Your task to perform on an android device: Toggle the flashlight Image 0: 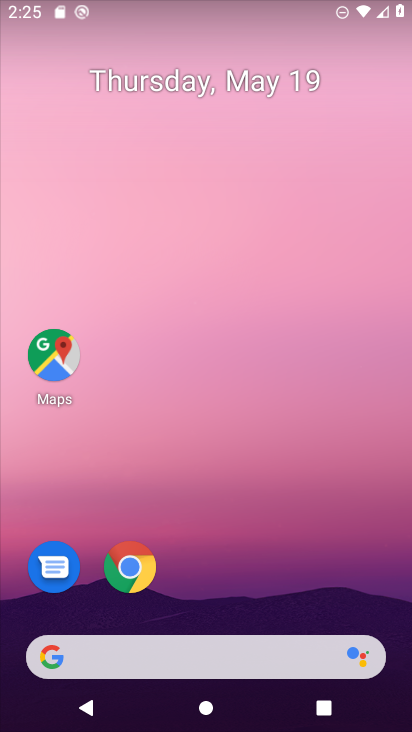
Step 0: drag from (262, 579) to (223, 84)
Your task to perform on an android device: Toggle the flashlight Image 1: 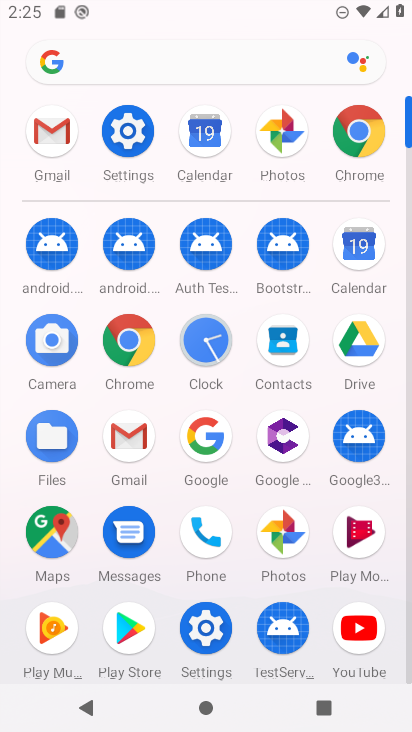
Step 1: click (132, 133)
Your task to perform on an android device: Toggle the flashlight Image 2: 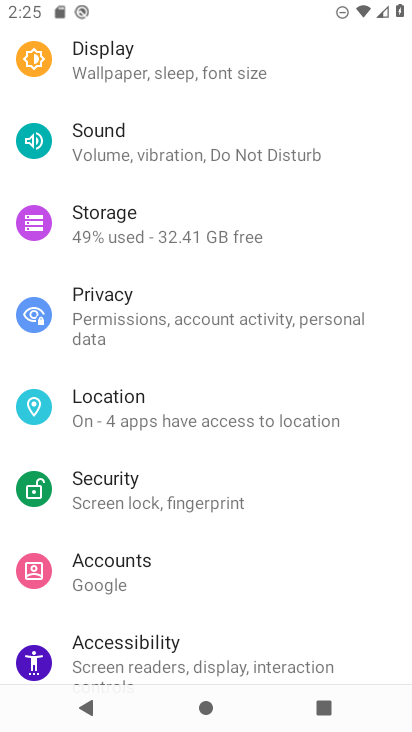
Step 2: drag from (208, 193) to (265, 634)
Your task to perform on an android device: Toggle the flashlight Image 3: 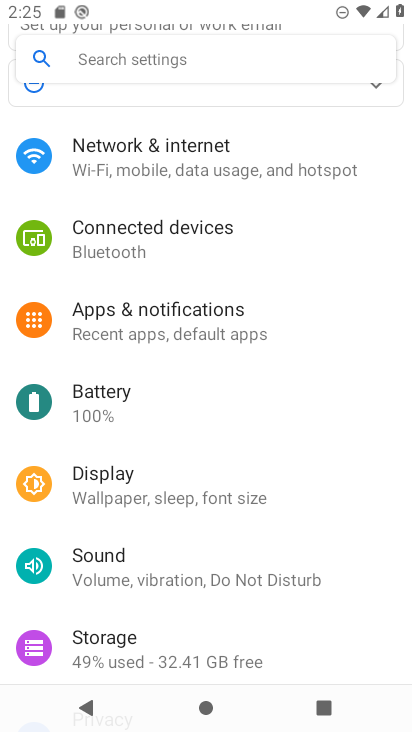
Step 3: drag from (254, 177) to (300, 587)
Your task to perform on an android device: Toggle the flashlight Image 4: 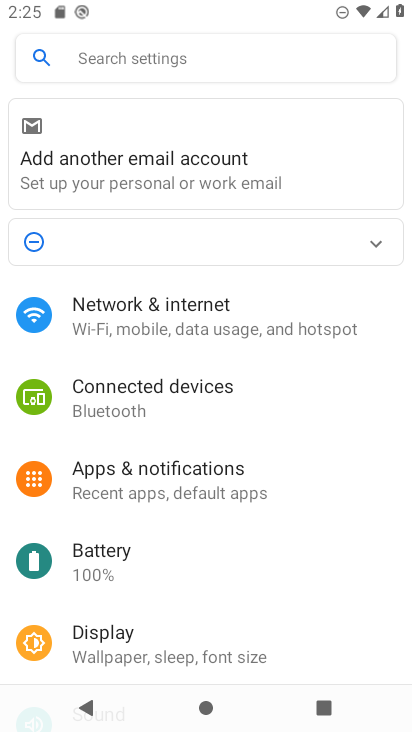
Step 4: click (280, 52)
Your task to perform on an android device: Toggle the flashlight Image 5: 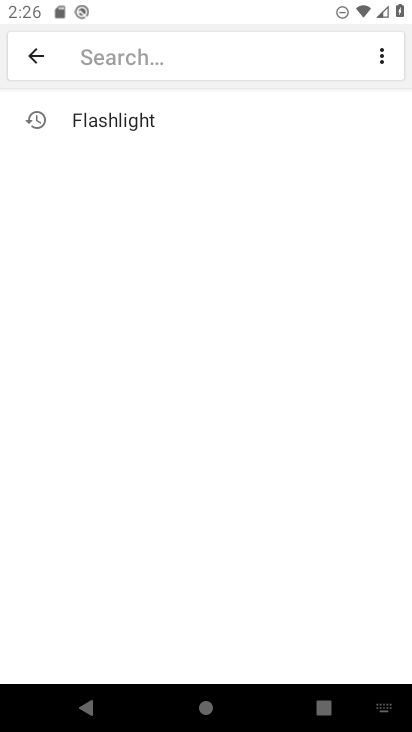
Step 5: click (133, 116)
Your task to perform on an android device: Toggle the flashlight Image 6: 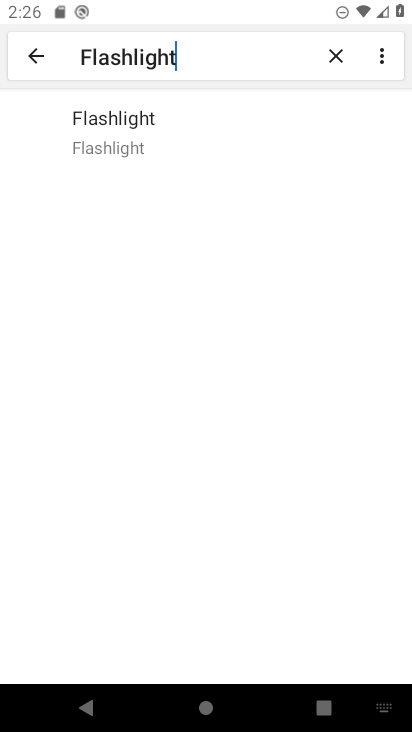
Step 6: click (130, 122)
Your task to perform on an android device: Toggle the flashlight Image 7: 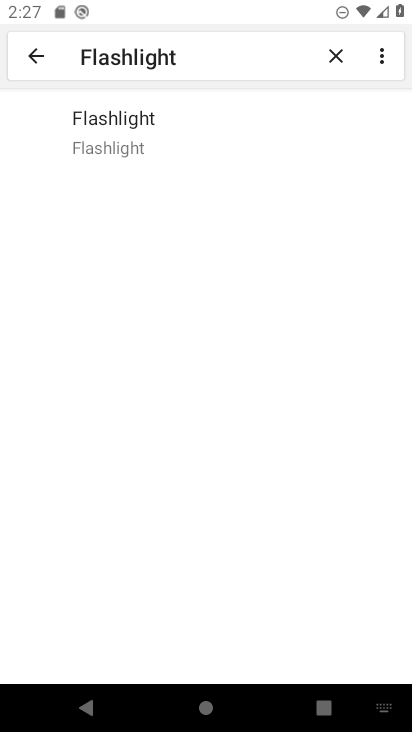
Step 7: task complete